Your task to perform on an android device: turn on priority inbox in the gmail app Image 0: 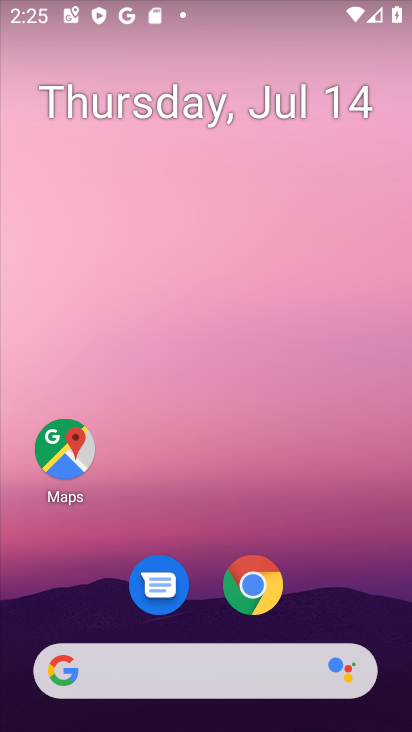
Step 0: drag from (307, 574) to (352, 48)
Your task to perform on an android device: turn on priority inbox in the gmail app Image 1: 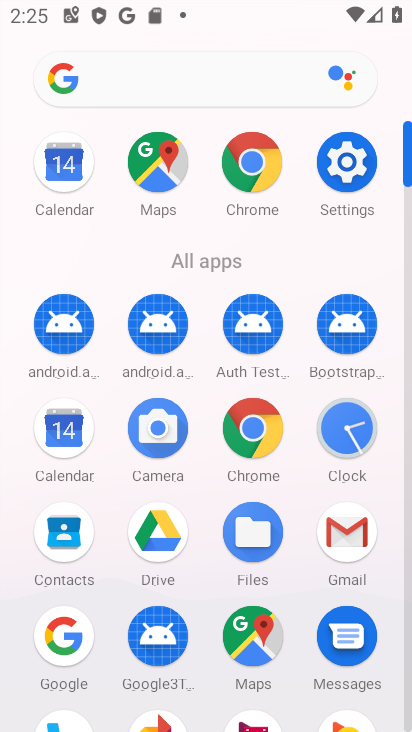
Step 1: click (360, 529)
Your task to perform on an android device: turn on priority inbox in the gmail app Image 2: 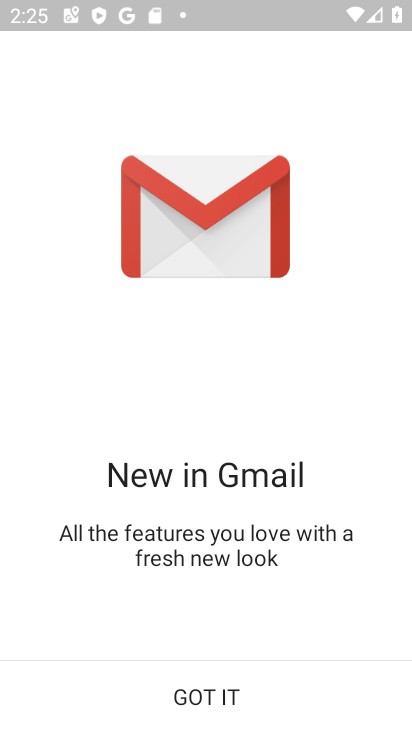
Step 2: click (221, 689)
Your task to perform on an android device: turn on priority inbox in the gmail app Image 3: 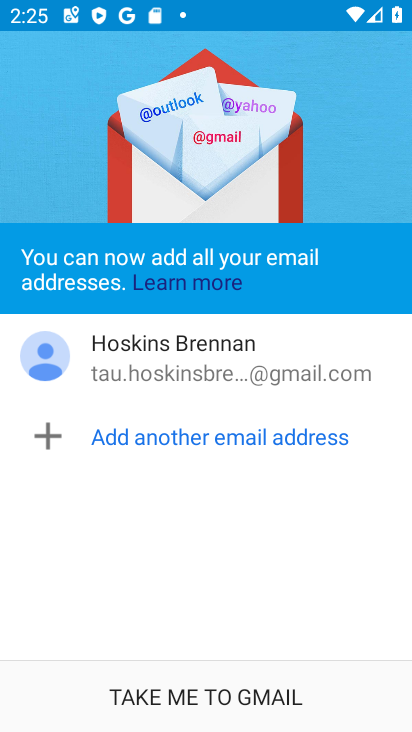
Step 3: click (221, 689)
Your task to perform on an android device: turn on priority inbox in the gmail app Image 4: 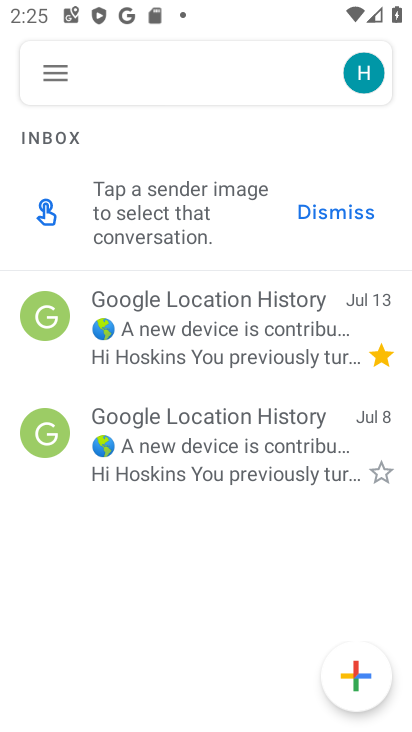
Step 4: click (56, 70)
Your task to perform on an android device: turn on priority inbox in the gmail app Image 5: 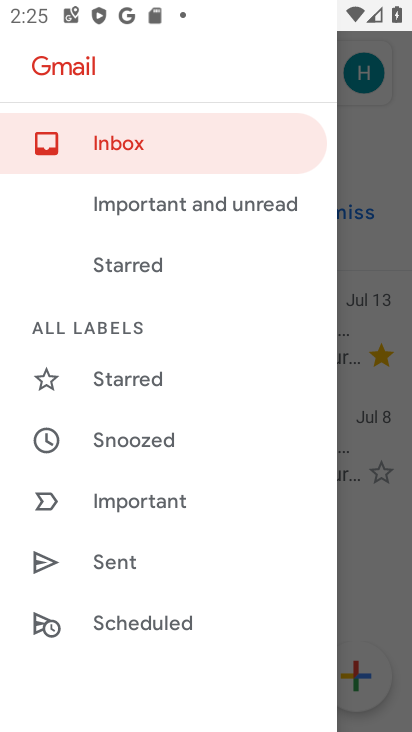
Step 5: drag from (156, 560) to (183, 44)
Your task to perform on an android device: turn on priority inbox in the gmail app Image 6: 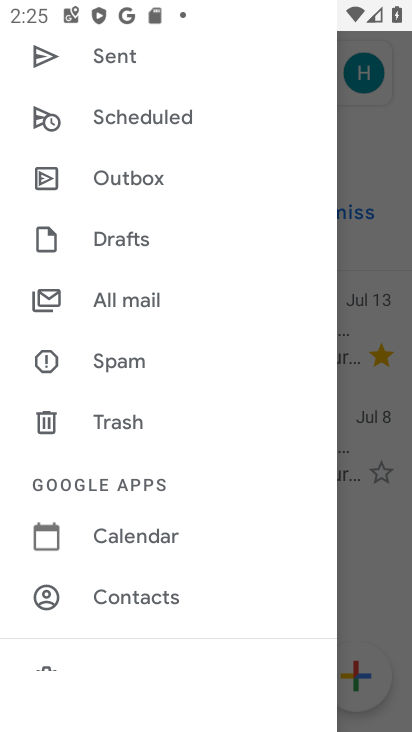
Step 6: drag from (198, 497) to (217, 231)
Your task to perform on an android device: turn on priority inbox in the gmail app Image 7: 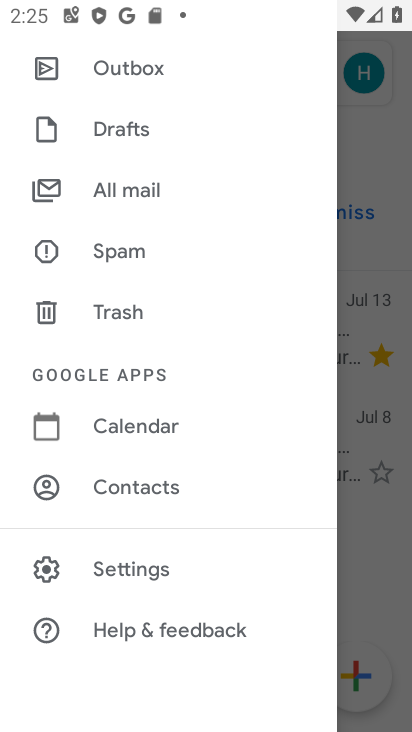
Step 7: click (151, 579)
Your task to perform on an android device: turn on priority inbox in the gmail app Image 8: 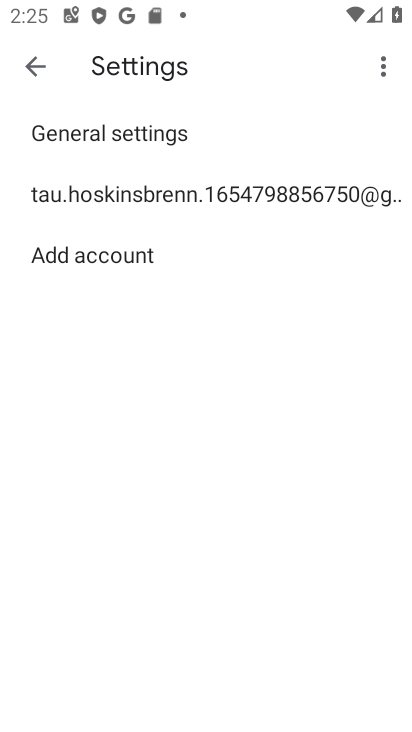
Step 8: click (249, 197)
Your task to perform on an android device: turn on priority inbox in the gmail app Image 9: 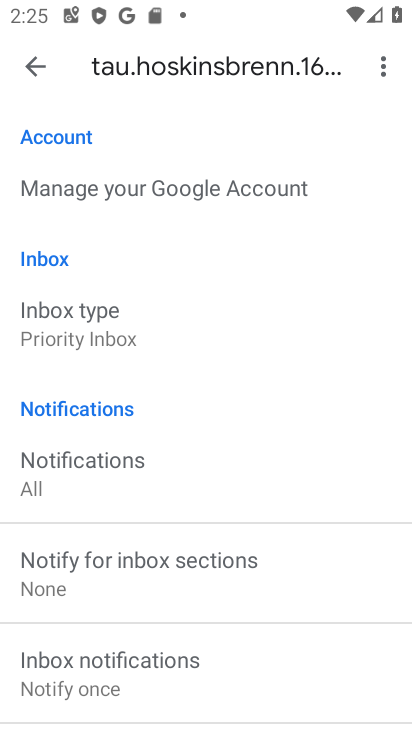
Step 9: click (71, 324)
Your task to perform on an android device: turn on priority inbox in the gmail app Image 10: 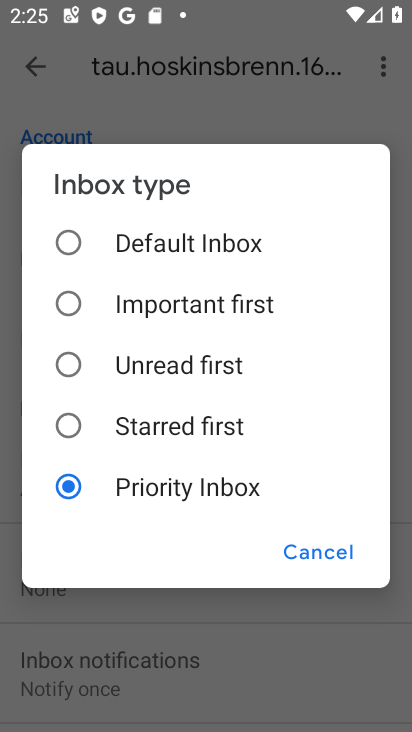
Step 10: click (324, 546)
Your task to perform on an android device: turn on priority inbox in the gmail app Image 11: 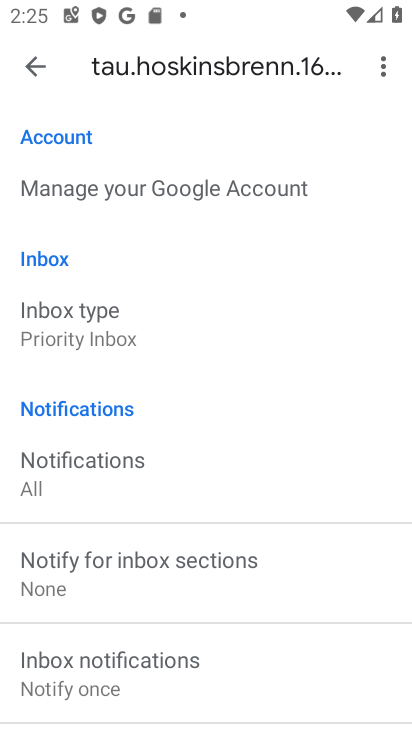
Step 11: task complete